Your task to perform on an android device: set default search engine in the chrome app Image 0: 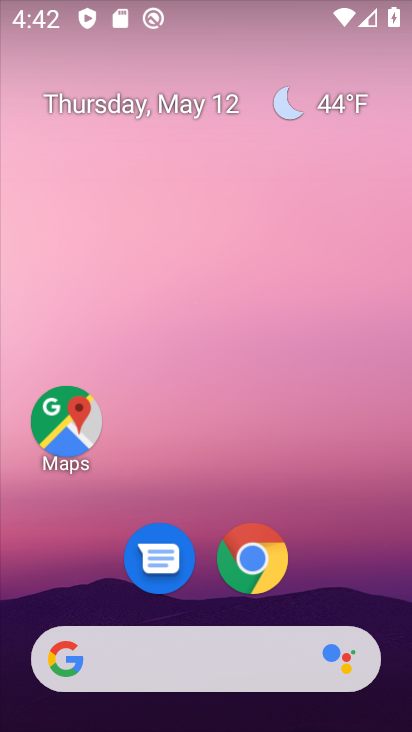
Step 0: drag from (333, 556) to (216, 42)
Your task to perform on an android device: set default search engine in the chrome app Image 1: 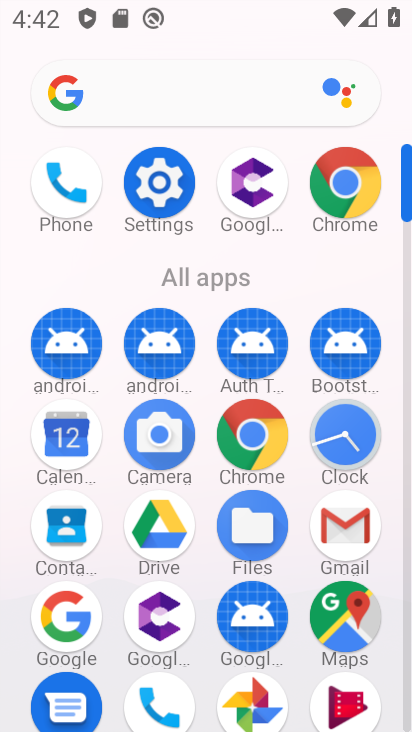
Step 1: click (253, 432)
Your task to perform on an android device: set default search engine in the chrome app Image 2: 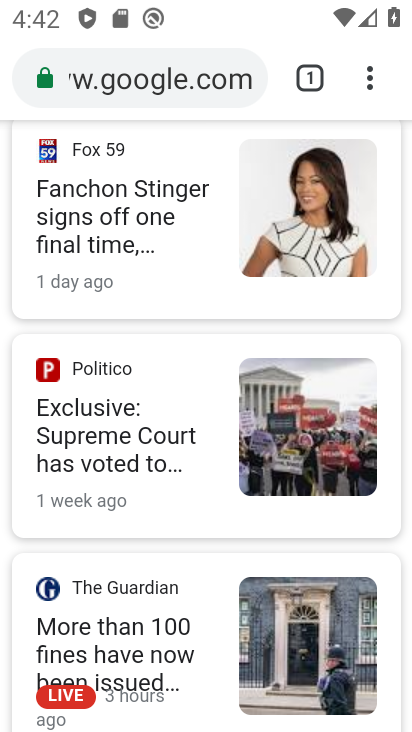
Step 2: drag from (367, 84) to (184, 611)
Your task to perform on an android device: set default search engine in the chrome app Image 3: 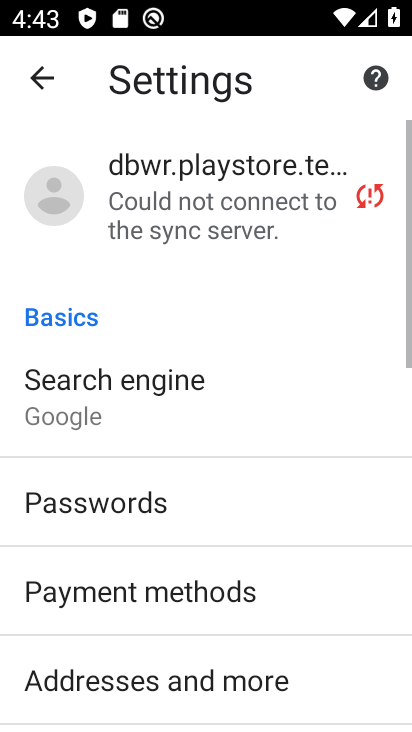
Step 3: click (152, 400)
Your task to perform on an android device: set default search engine in the chrome app Image 4: 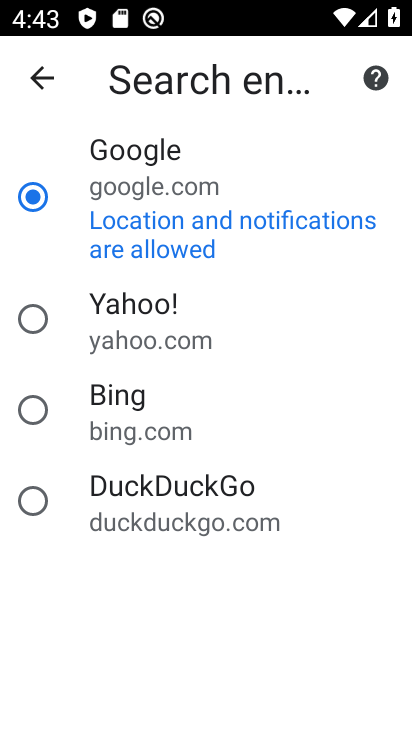
Step 4: click (169, 309)
Your task to perform on an android device: set default search engine in the chrome app Image 5: 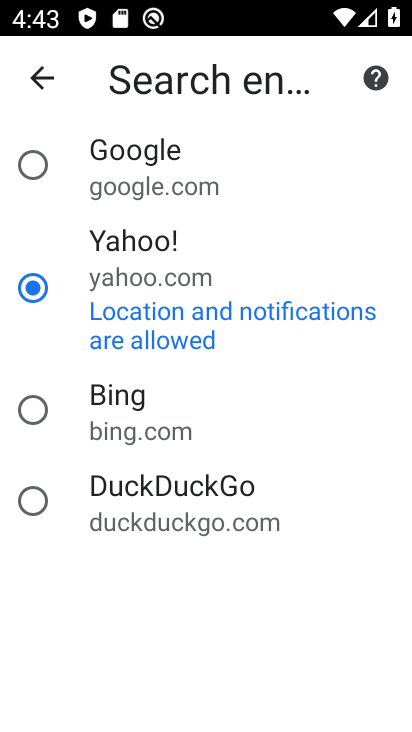
Step 5: click (41, 76)
Your task to perform on an android device: set default search engine in the chrome app Image 6: 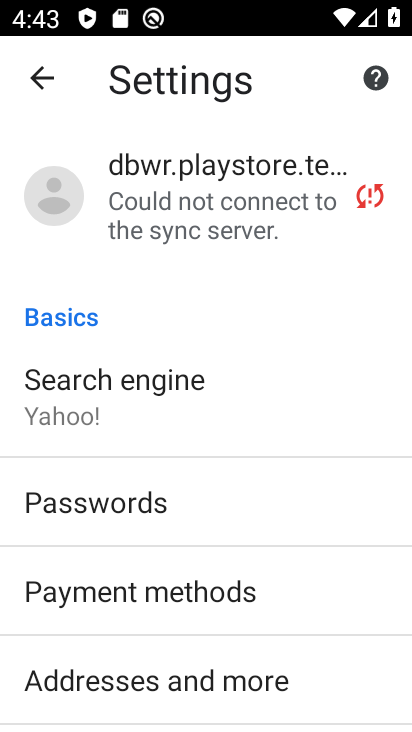
Step 6: task complete